Your task to perform on an android device: check google app version Image 0: 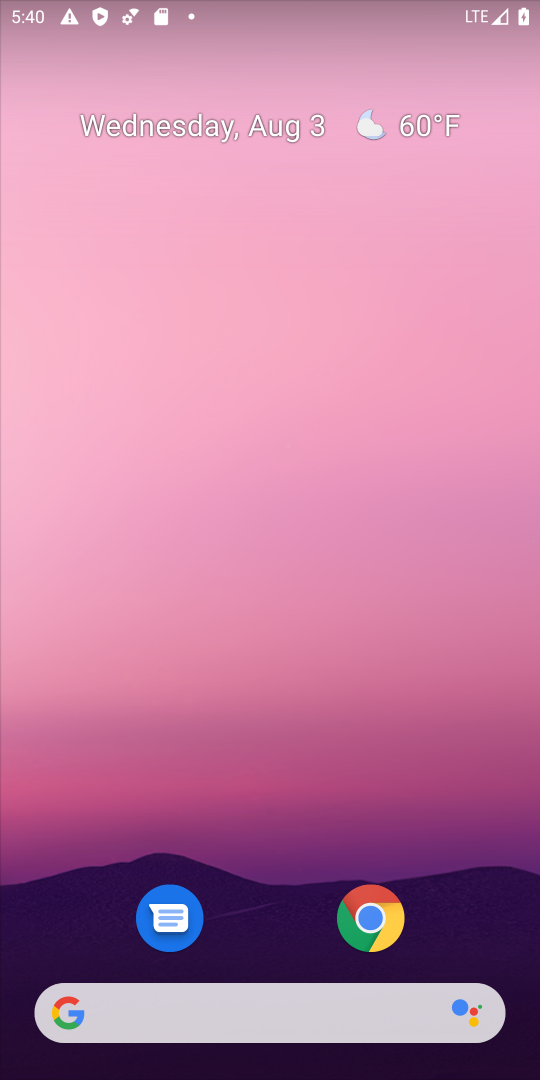
Step 0: drag from (244, 993) to (338, 168)
Your task to perform on an android device: check google app version Image 1: 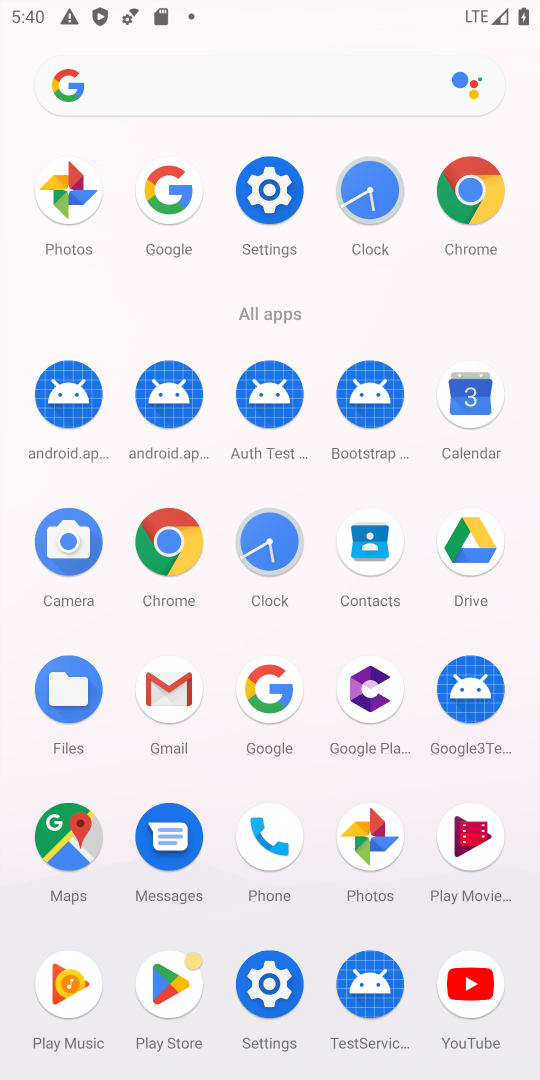
Step 1: click (245, 695)
Your task to perform on an android device: check google app version Image 2: 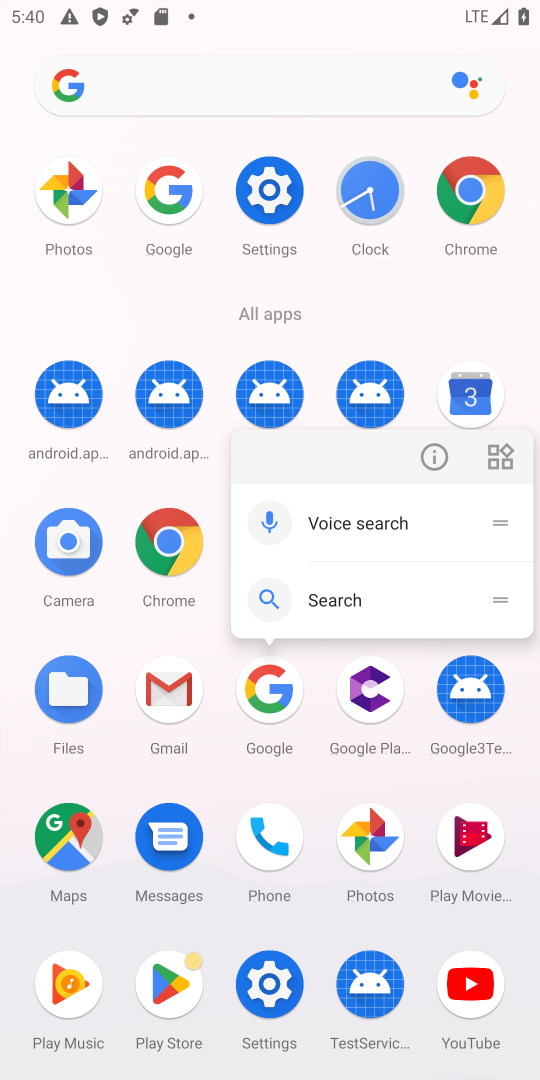
Step 2: click (440, 457)
Your task to perform on an android device: check google app version Image 3: 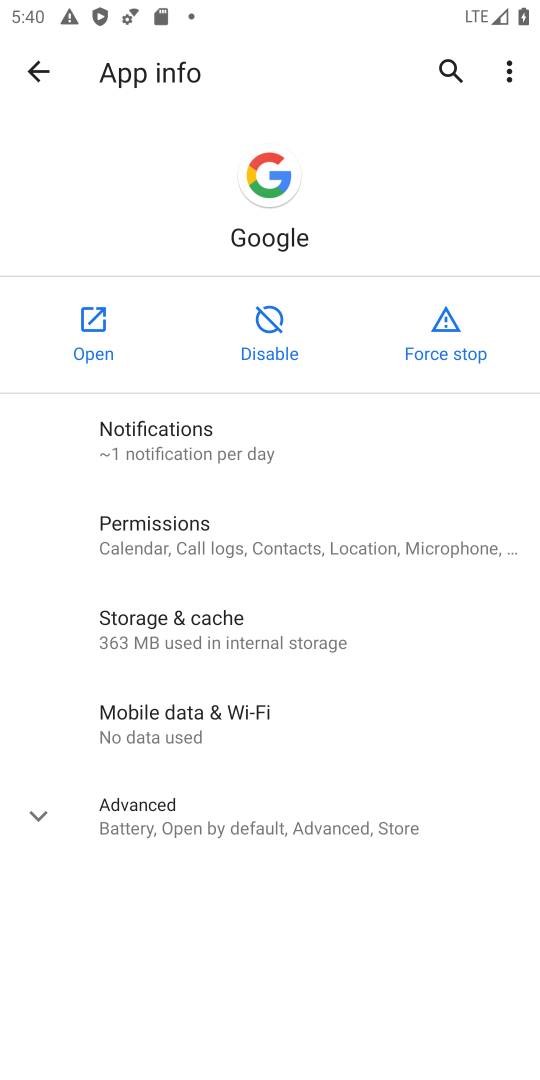
Step 3: click (220, 805)
Your task to perform on an android device: check google app version Image 4: 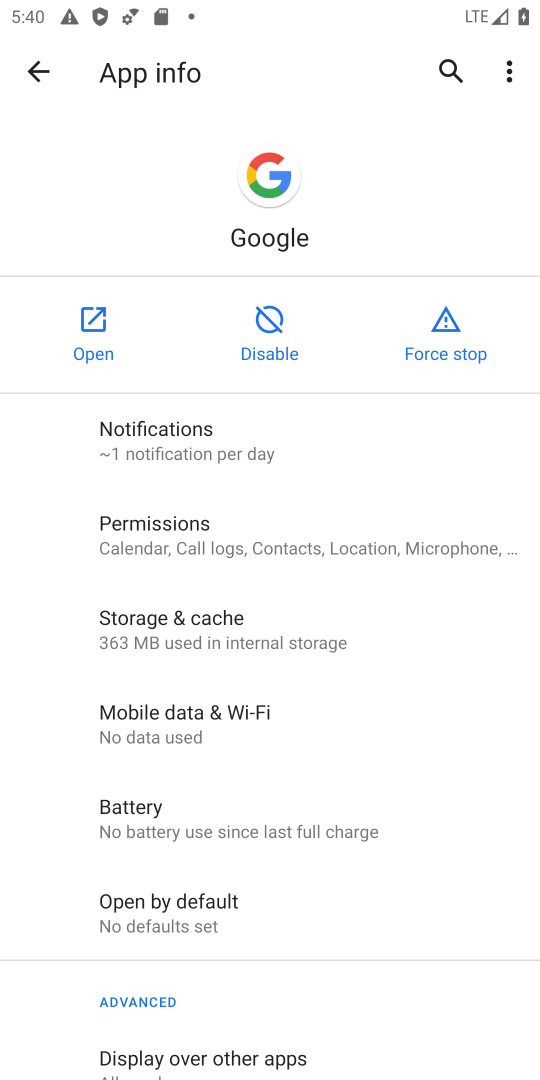
Step 4: task complete